Your task to perform on an android device: set default search engine in the chrome app Image 0: 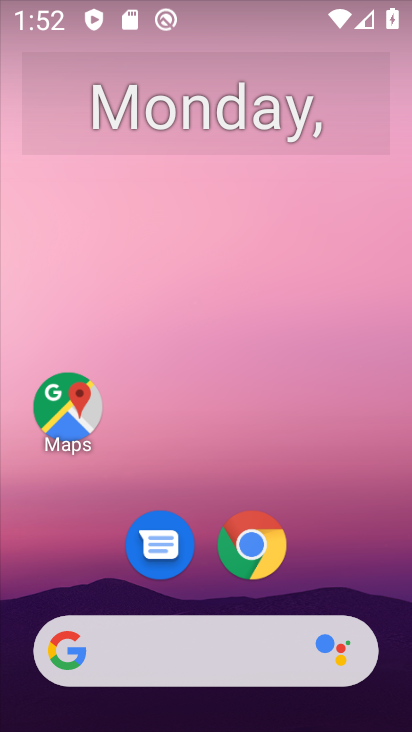
Step 0: click (236, 526)
Your task to perform on an android device: set default search engine in the chrome app Image 1: 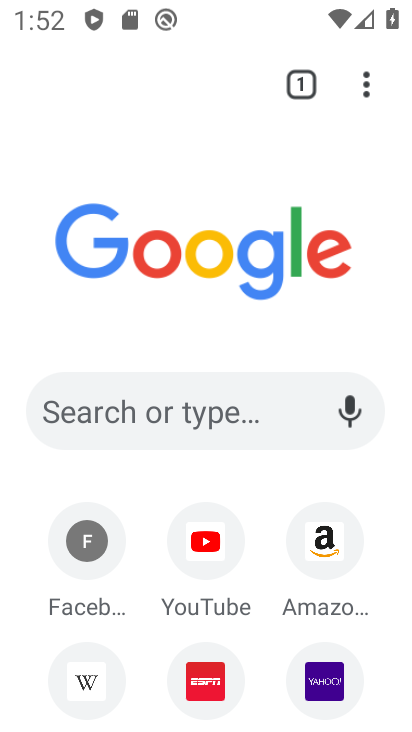
Step 1: click (371, 77)
Your task to perform on an android device: set default search engine in the chrome app Image 2: 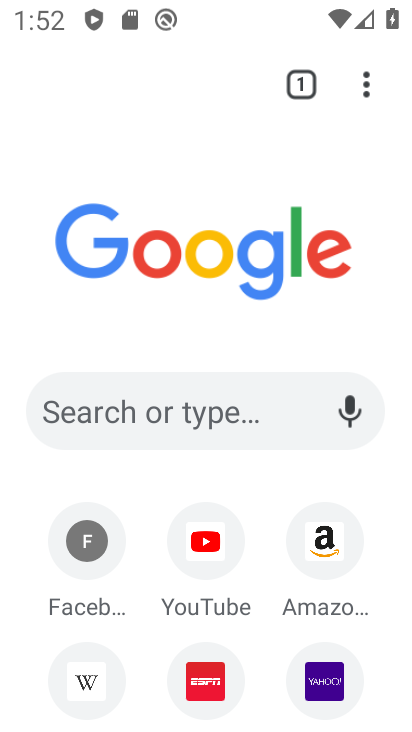
Step 2: drag from (375, 90) to (117, 595)
Your task to perform on an android device: set default search engine in the chrome app Image 3: 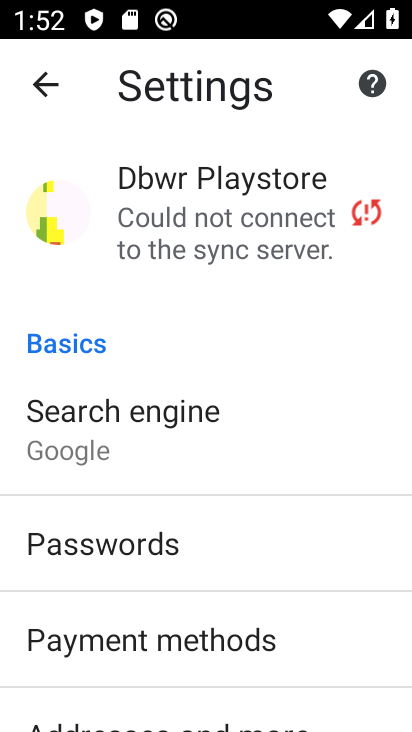
Step 3: drag from (161, 629) to (301, 155)
Your task to perform on an android device: set default search engine in the chrome app Image 4: 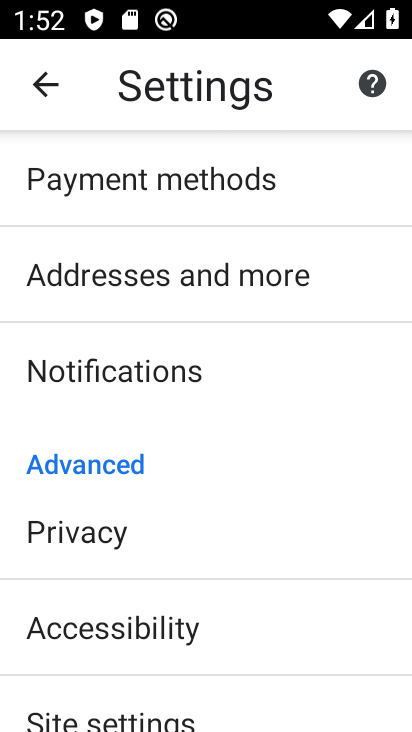
Step 4: drag from (197, 224) to (201, 708)
Your task to perform on an android device: set default search engine in the chrome app Image 5: 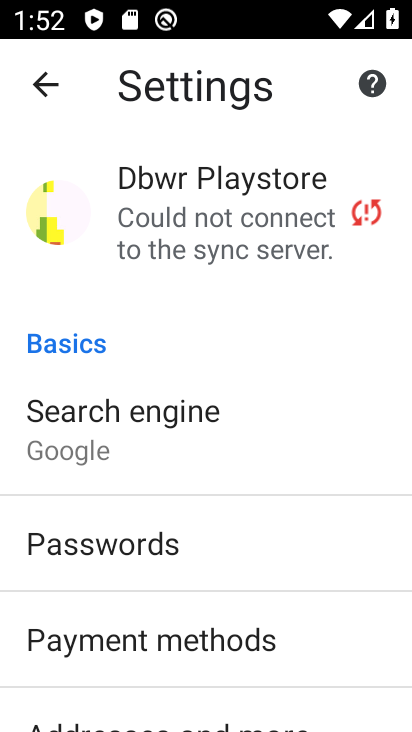
Step 5: click (79, 427)
Your task to perform on an android device: set default search engine in the chrome app Image 6: 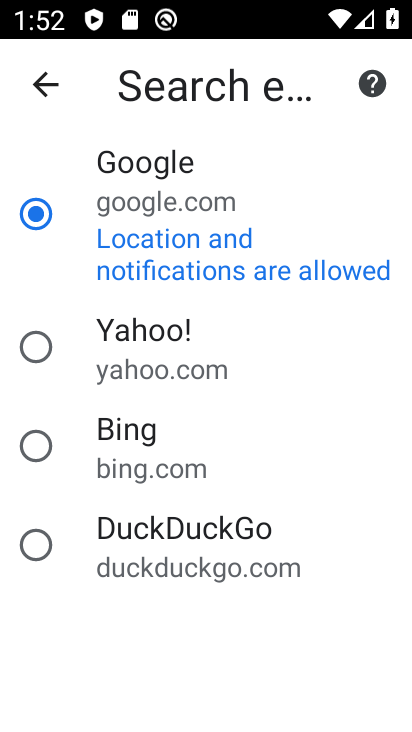
Step 6: click (26, 339)
Your task to perform on an android device: set default search engine in the chrome app Image 7: 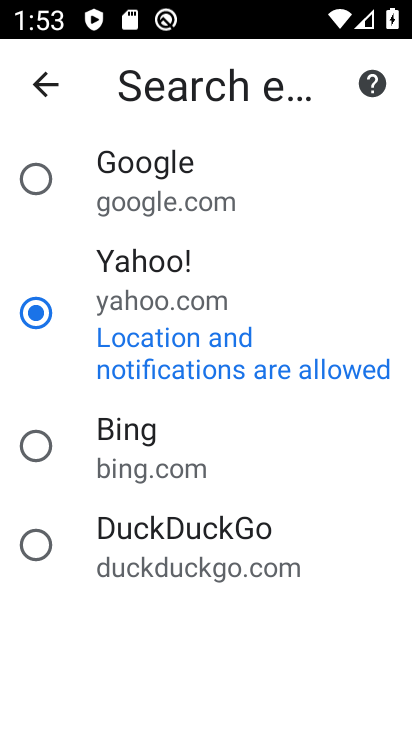
Step 7: task complete